Your task to perform on an android device: allow cookies in the chrome app Image 0: 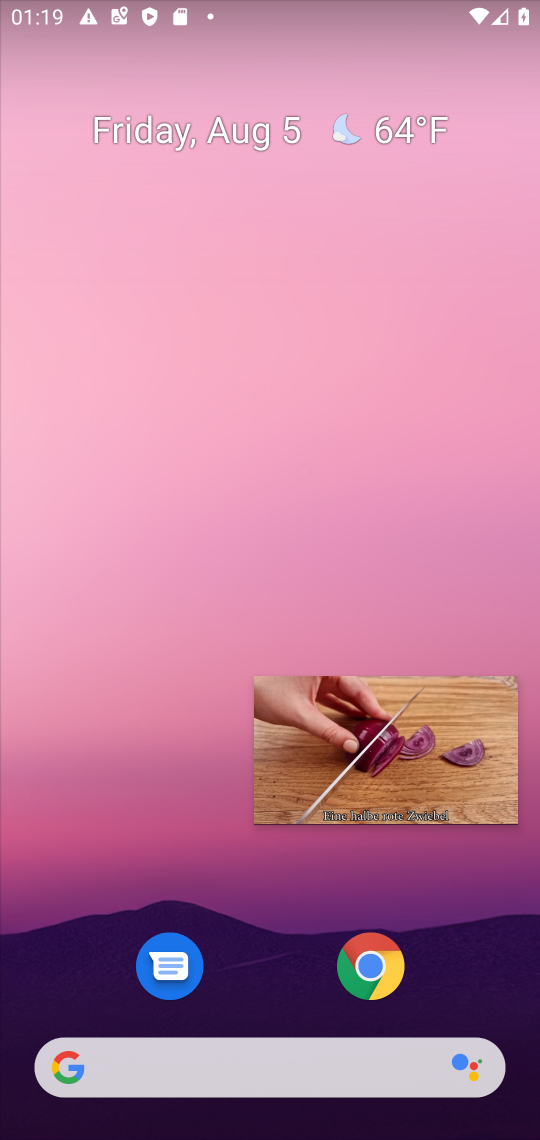
Step 0: click (441, 725)
Your task to perform on an android device: allow cookies in the chrome app Image 1: 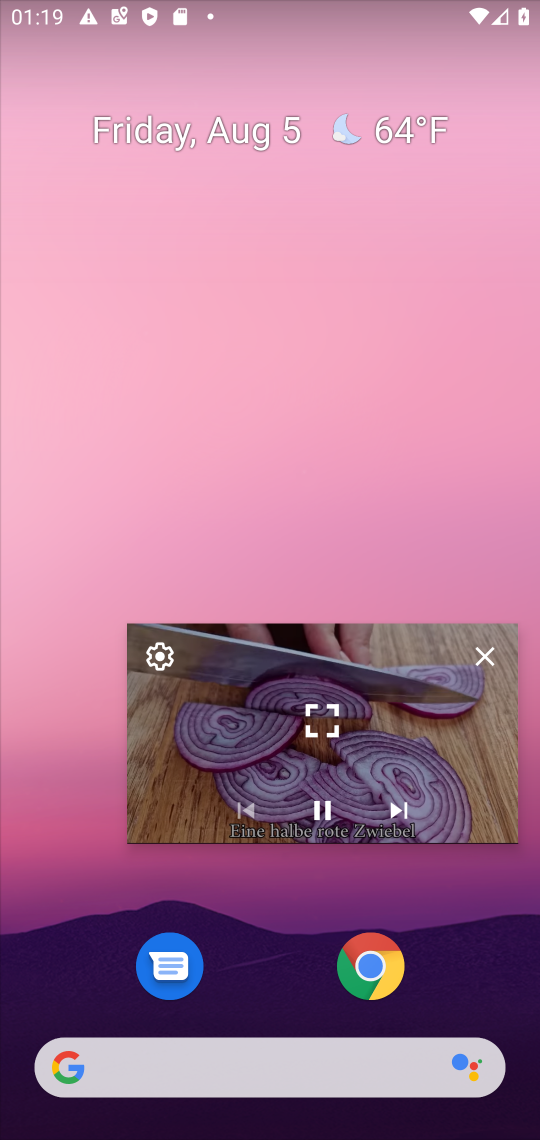
Step 1: click (489, 685)
Your task to perform on an android device: allow cookies in the chrome app Image 2: 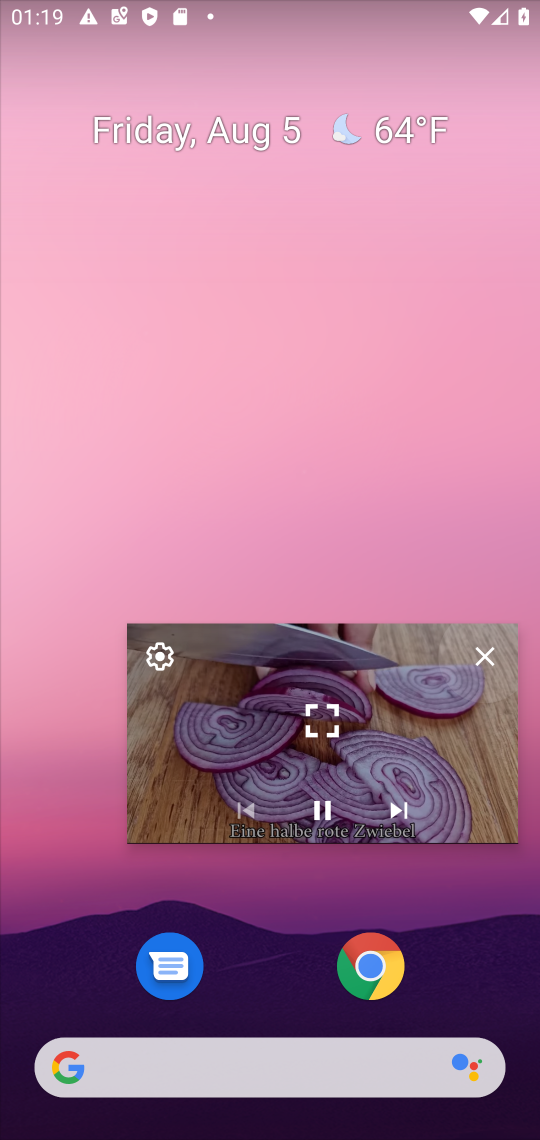
Step 2: click (489, 647)
Your task to perform on an android device: allow cookies in the chrome app Image 3: 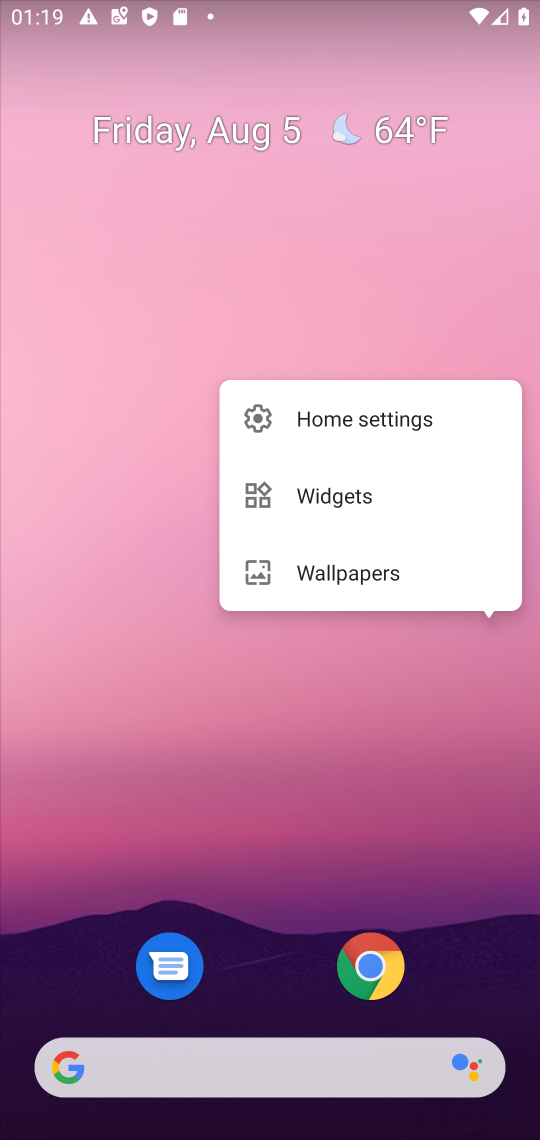
Step 3: click (481, 687)
Your task to perform on an android device: allow cookies in the chrome app Image 4: 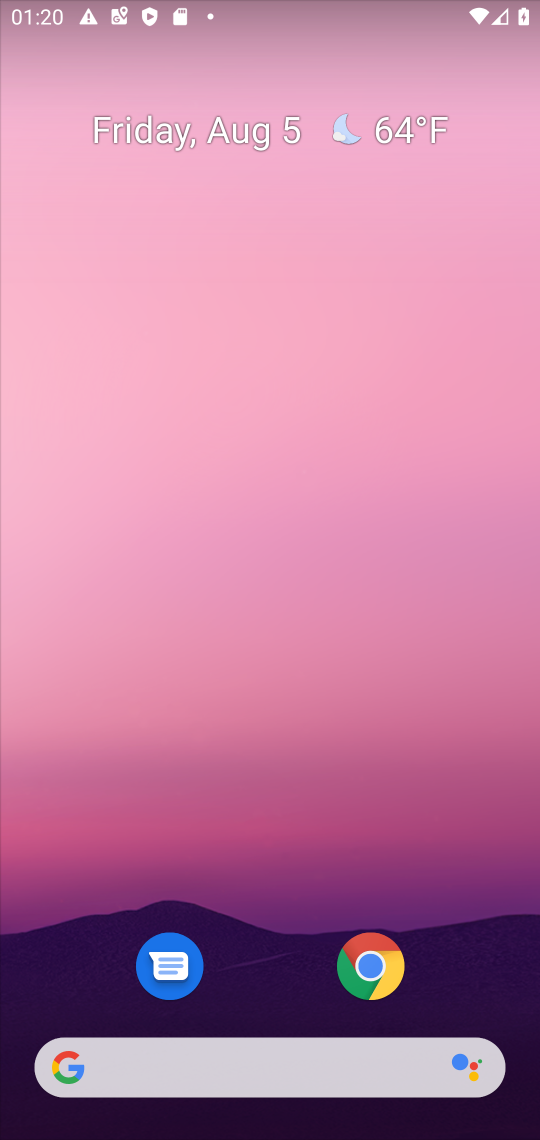
Step 4: click (381, 962)
Your task to perform on an android device: allow cookies in the chrome app Image 5: 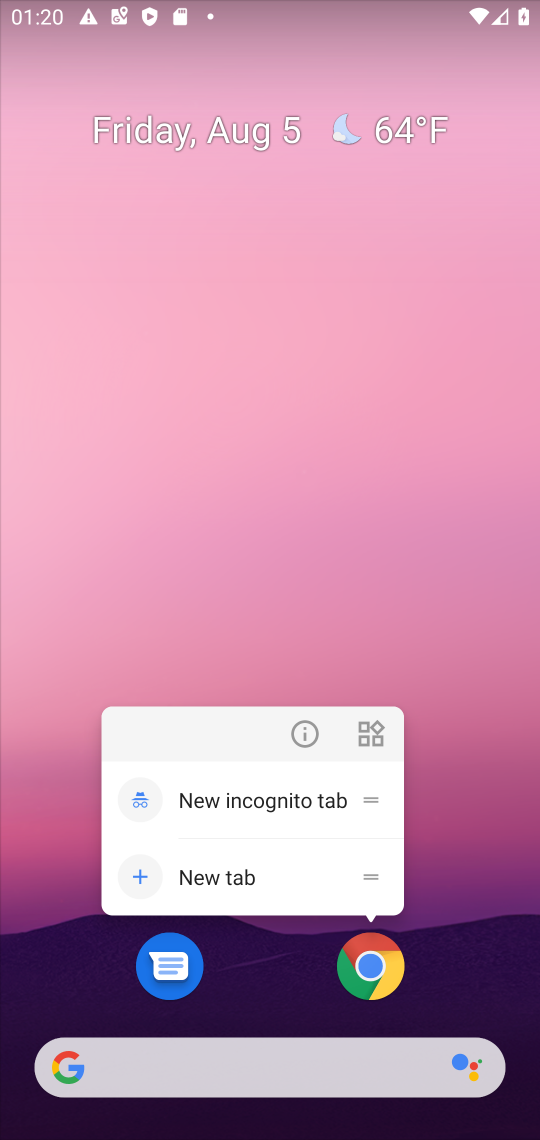
Step 5: click (366, 969)
Your task to perform on an android device: allow cookies in the chrome app Image 6: 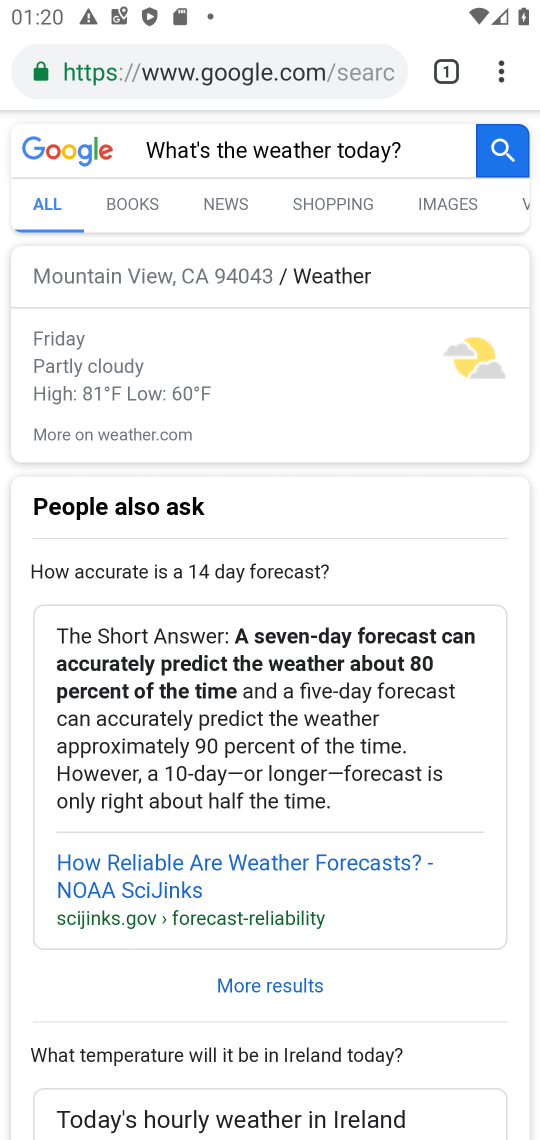
Step 6: click (503, 74)
Your task to perform on an android device: allow cookies in the chrome app Image 7: 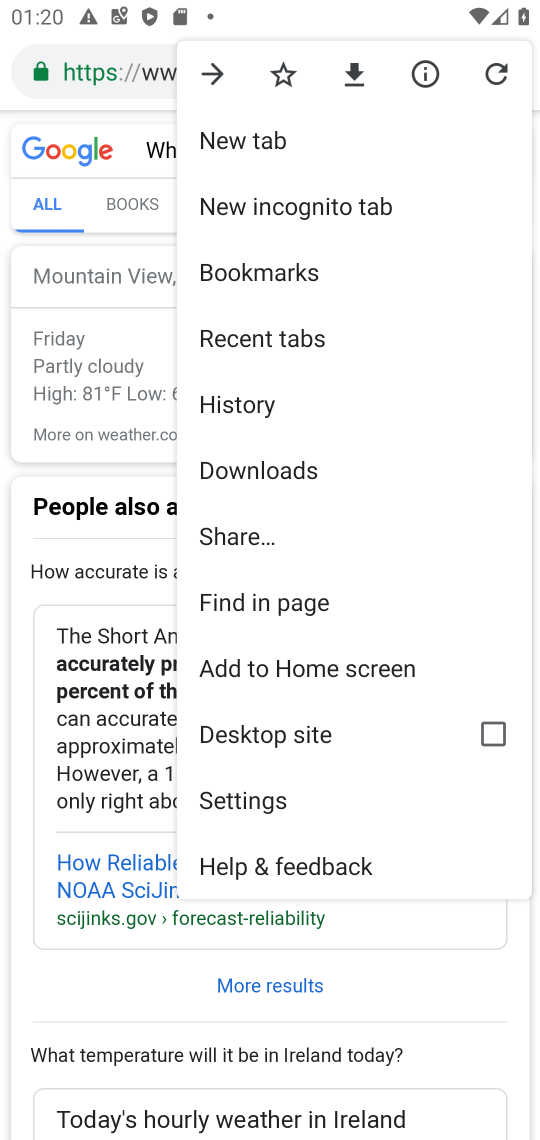
Step 7: click (265, 802)
Your task to perform on an android device: allow cookies in the chrome app Image 8: 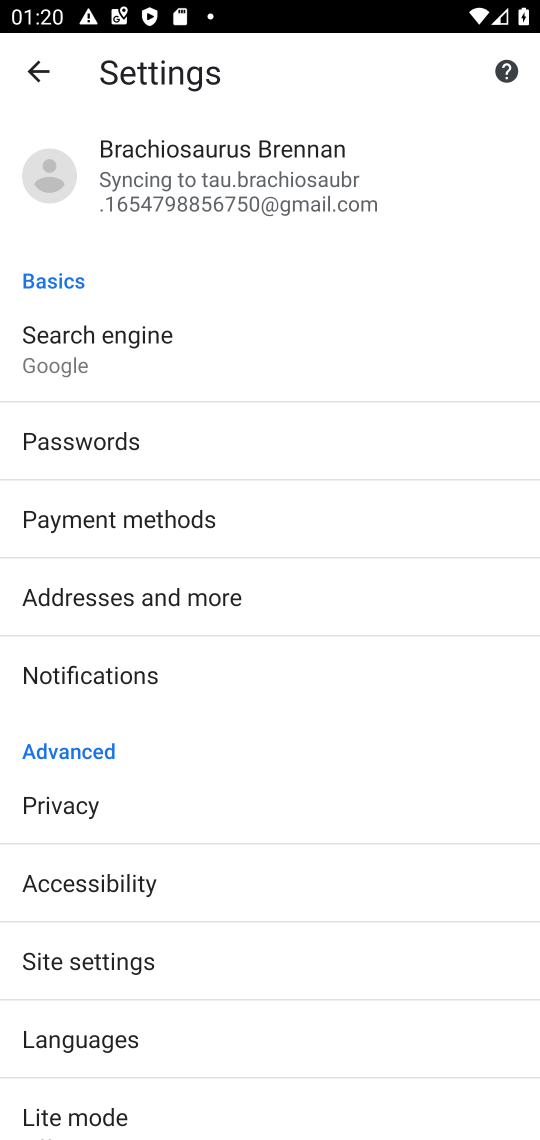
Step 8: click (137, 955)
Your task to perform on an android device: allow cookies in the chrome app Image 9: 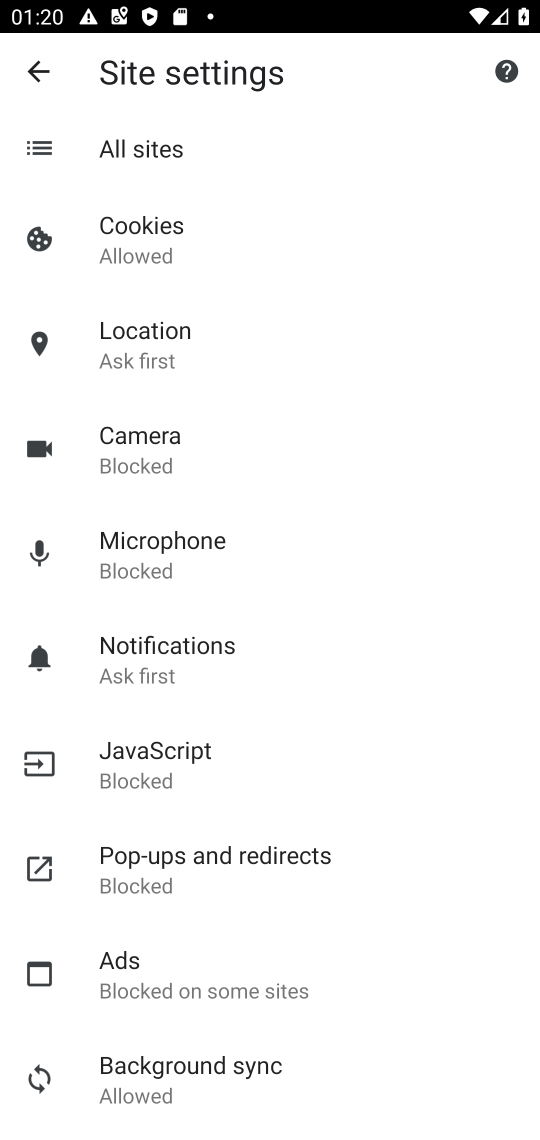
Step 9: click (169, 241)
Your task to perform on an android device: allow cookies in the chrome app Image 10: 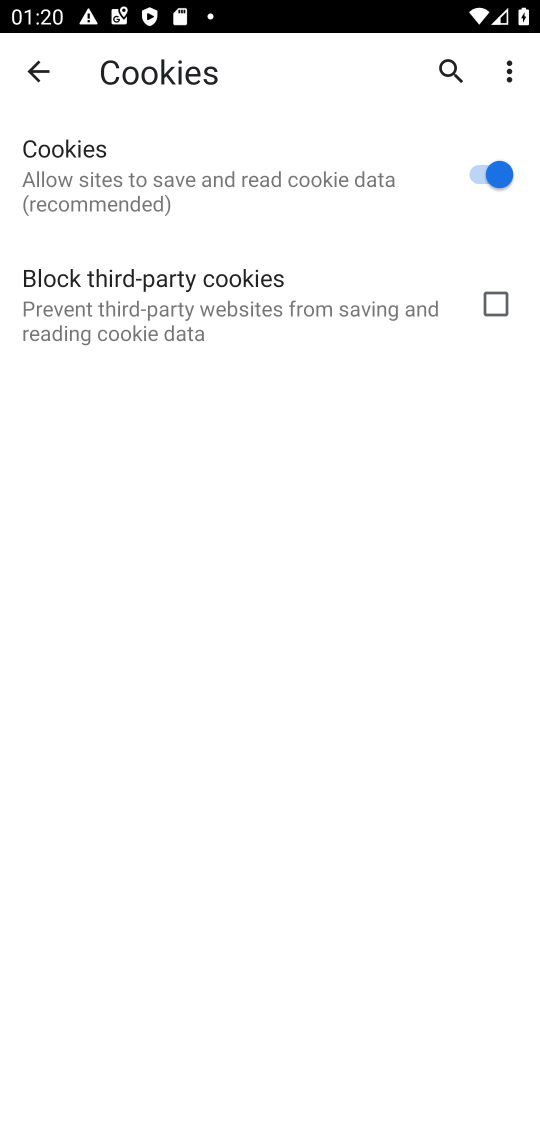
Step 10: task complete